Your task to perform on an android device: show emergency info Image 0: 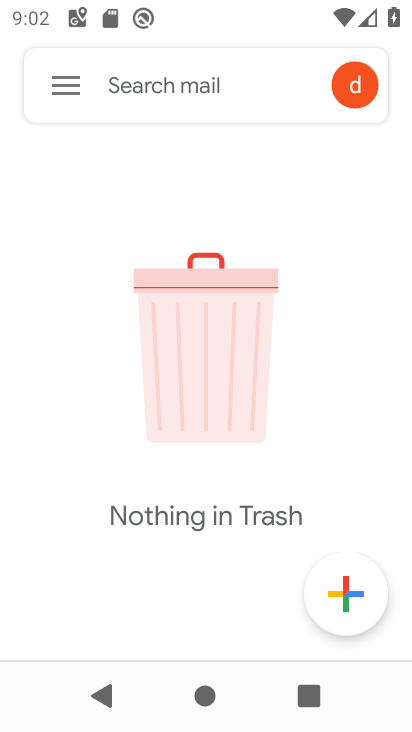
Step 0: press home button
Your task to perform on an android device: show emergency info Image 1: 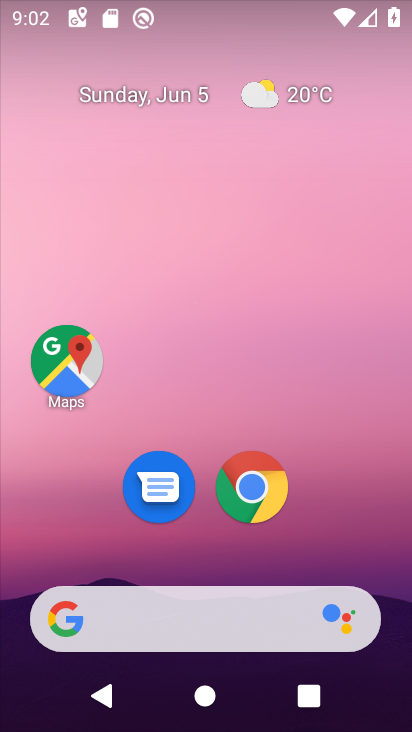
Step 1: drag from (256, 519) to (304, 171)
Your task to perform on an android device: show emergency info Image 2: 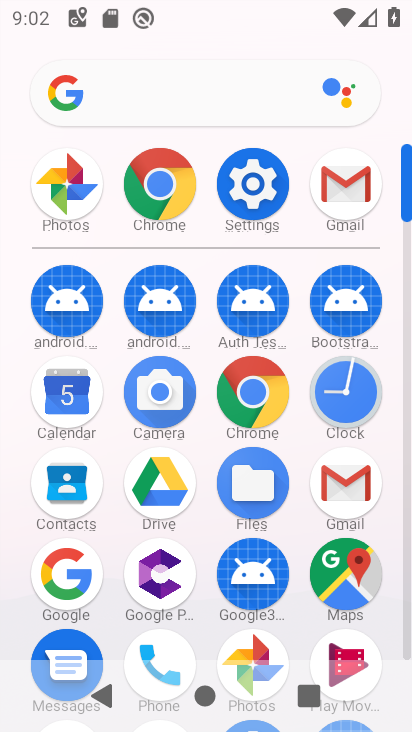
Step 2: click (252, 179)
Your task to perform on an android device: show emergency info Image 3: 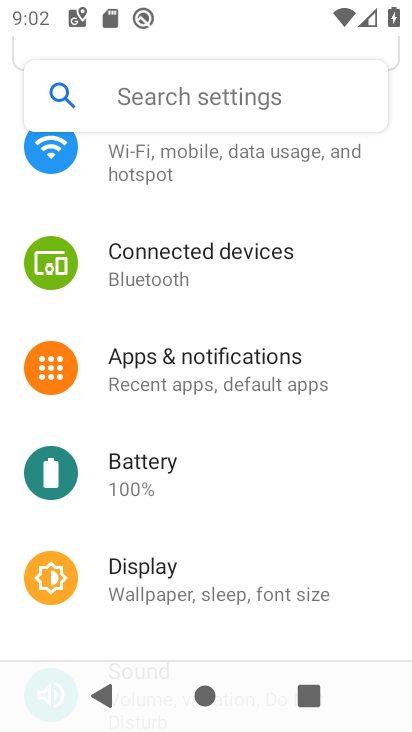
Step 3: drag from (199, 625) to (276, 203)
Your task to perform on an android device: show emergency info Image 4: 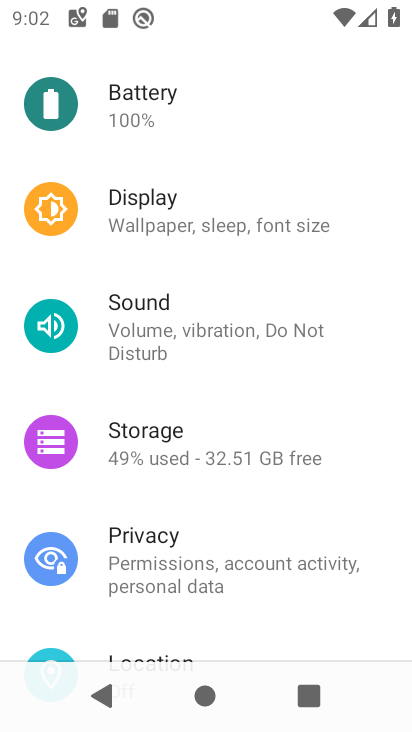
Step 4: drag from (204, 585) to (268, 169)
Your task to perform on an android device: show emergency info Image 5: 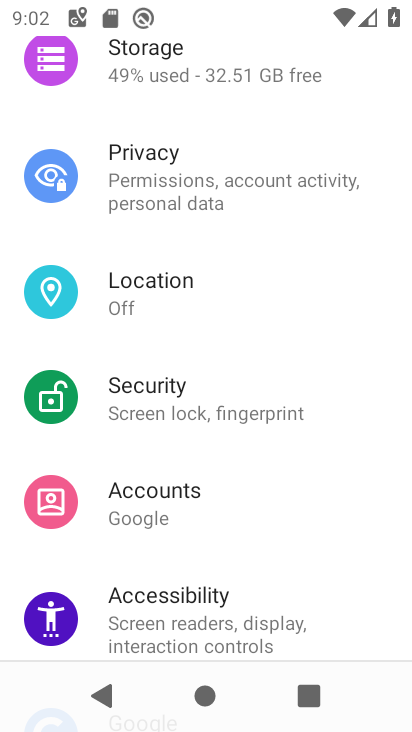
Step 5: drag from (233, 548) to (256, 242)
Your task to perform on an android device: show emergency info Image 6: 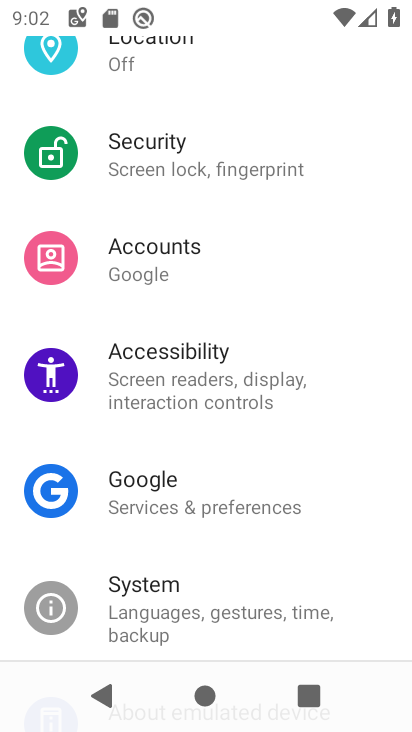
Step 6: drag from (140, 588) to (225, 93)
Your task to perform on an android device: show emergency info Image 7: 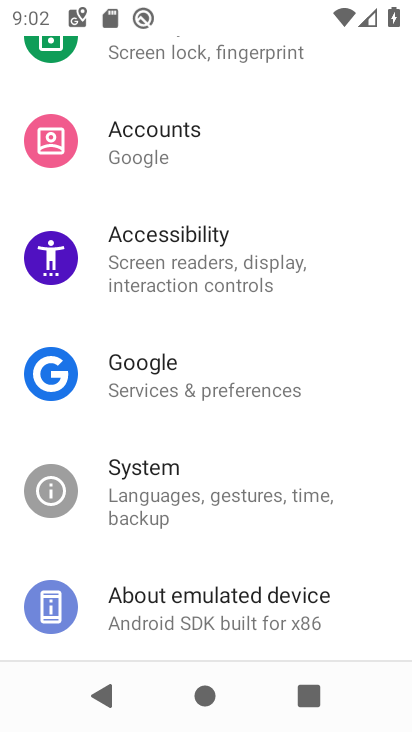
Step 7: click (185, 613)
Your task to perform on an android device: show emergency info Image 8: 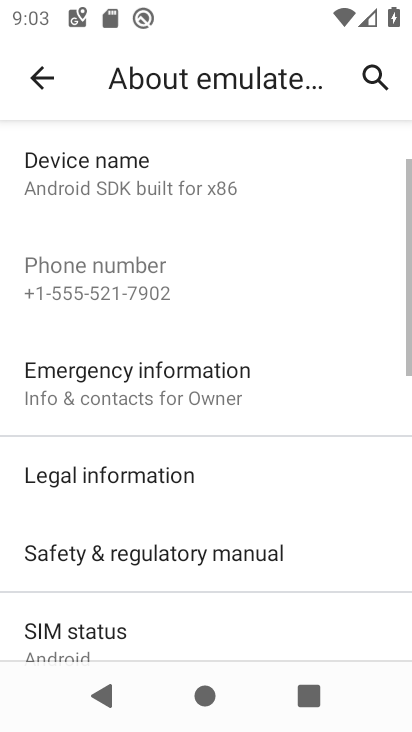
Step 8: click (152, 368)
Your task to perform on an android device: show emergency info Image 9: 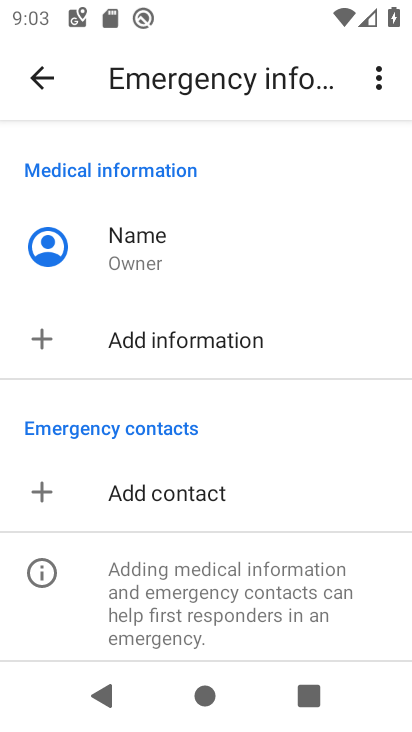
Step 9: task complete